Your task to perform on an android device: turn off wifi Image 0: 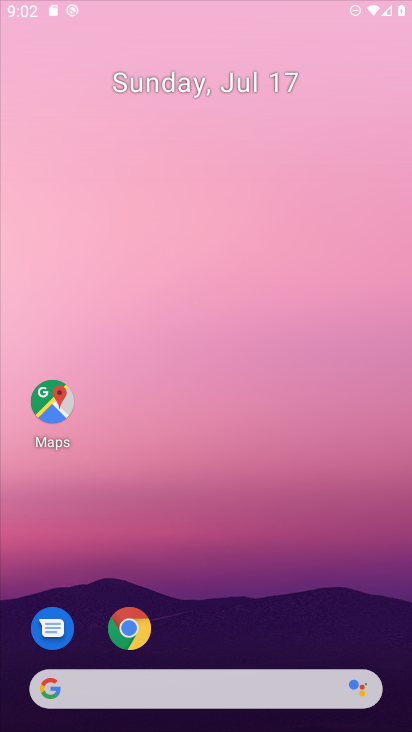
Step 0: drag from (245, 576) to (237, 159)
Your task to perform on an android device: turn off wifi Image 1: 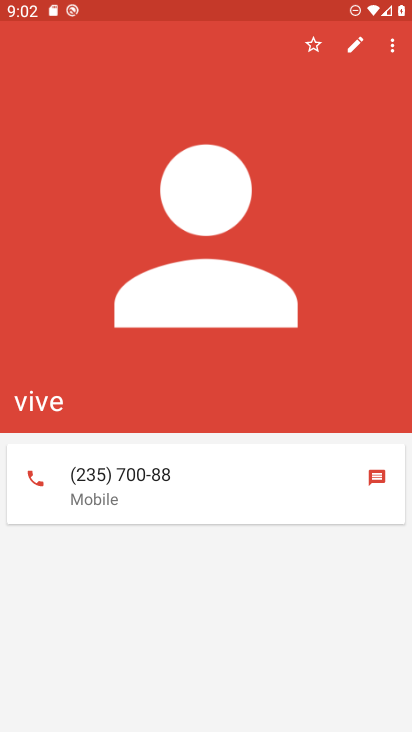
Step 1: press home button
Your task to perform on an android device: turn off wifi Image 2: 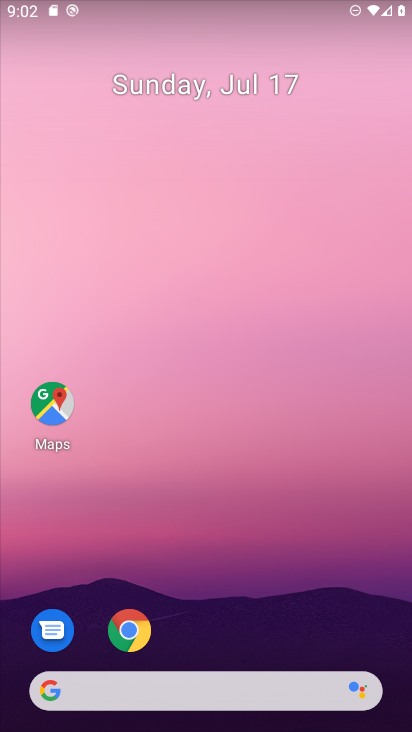
Step 2: drag from (254, 570) to (233, 256)
Your task to perform on an android device: turn off wifi Image 3: 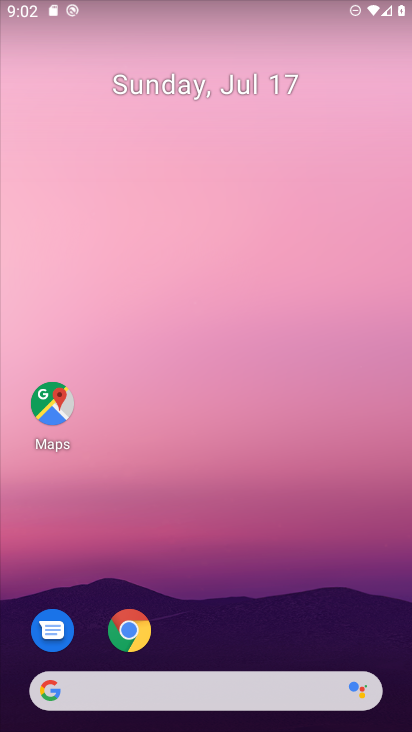
Step 3: drag from (218, 626) to (195, 110)
Your task to perform on an android device: turn off wifi Image 4: 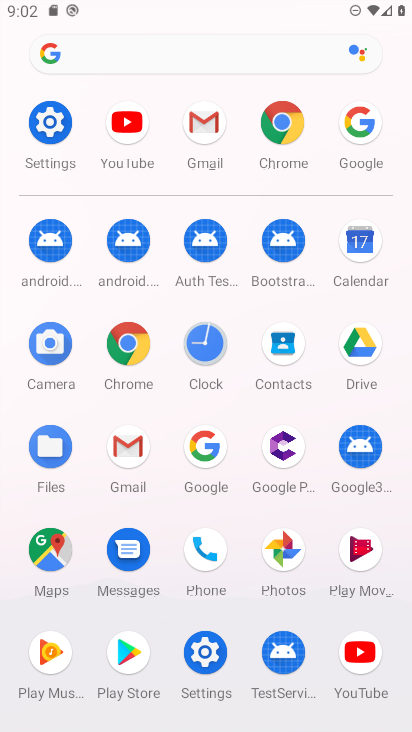
Step 4: click (33, 111)
Your task to perform on an android device: turn off wifi Image 5: 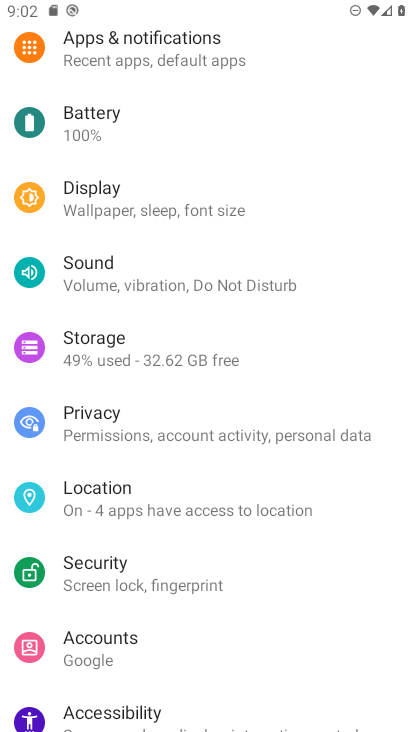
Step 5: drag from (261, 83) to (214, 634)
Your task to perform on an android device: turn off wifi Image 6: 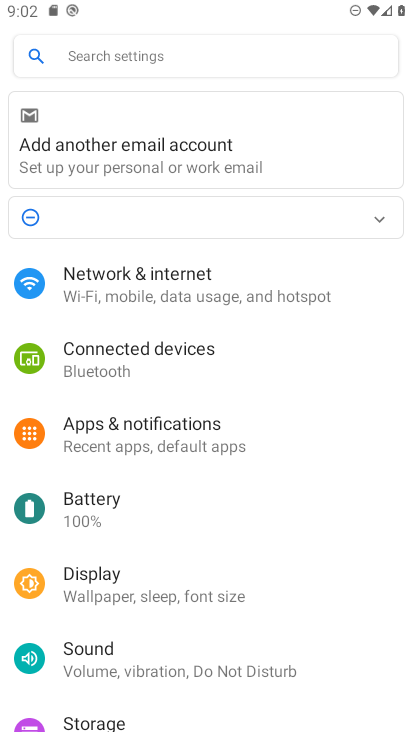
Step 6: click (171, 279)
Your task to perform on an android device: turn off wifi Image 7: 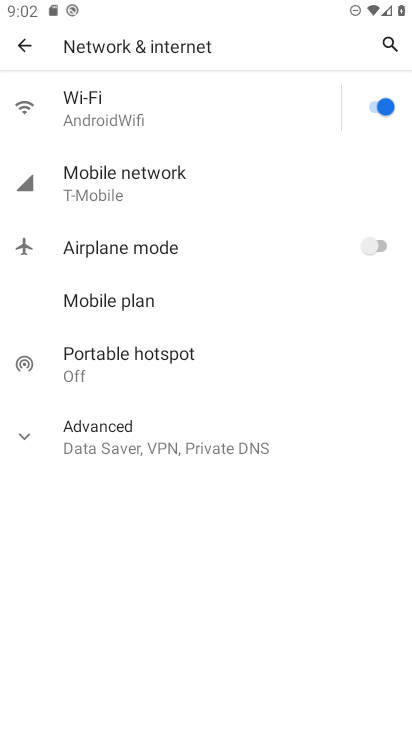
Step 7: click (378, 104)
Your task to perform on an android device: turn off wifi Image 8: 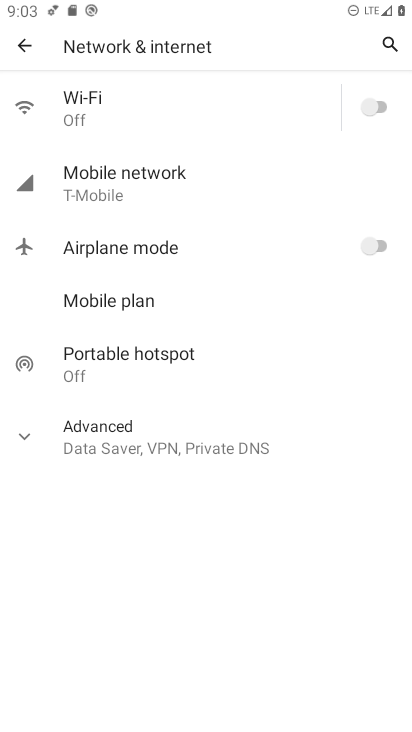
Step 8: task complete